Your task to perform on an android device: Go to Android settings Image 0: 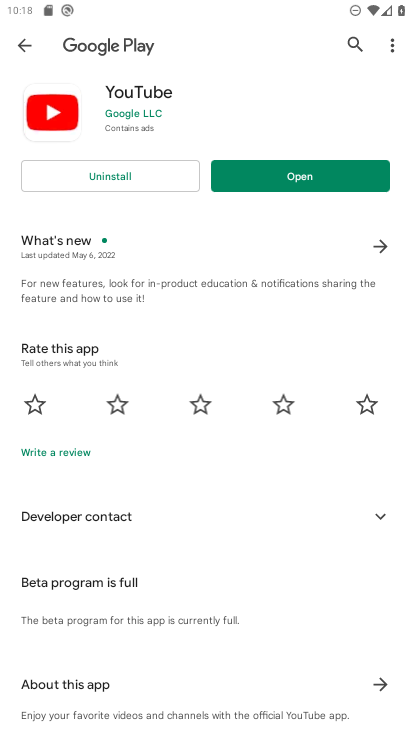
Step 0: press home button
Your task to perform on an android device: Go to Android settings Image 1: 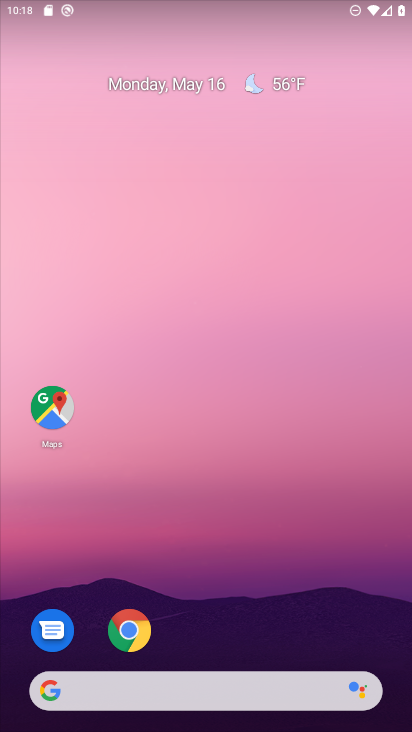
Step 1: drag from (177, 533) to (277, 0)
Your task to perform on an android device: Go to Android settings Image 2: 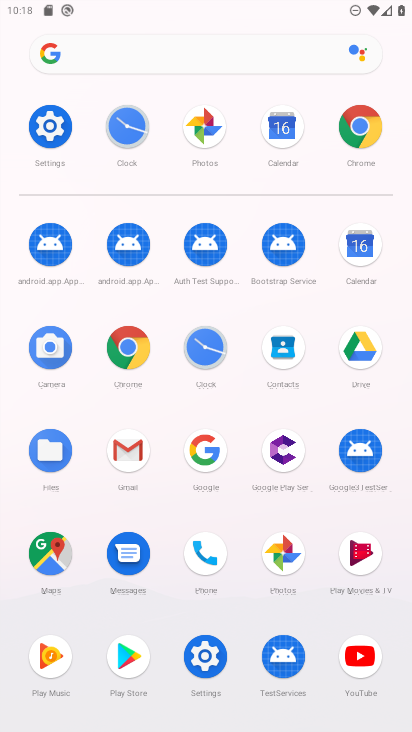
Step 2: click (37, 147)
Your task to perform on an android device: Go to Android settings Image 3: 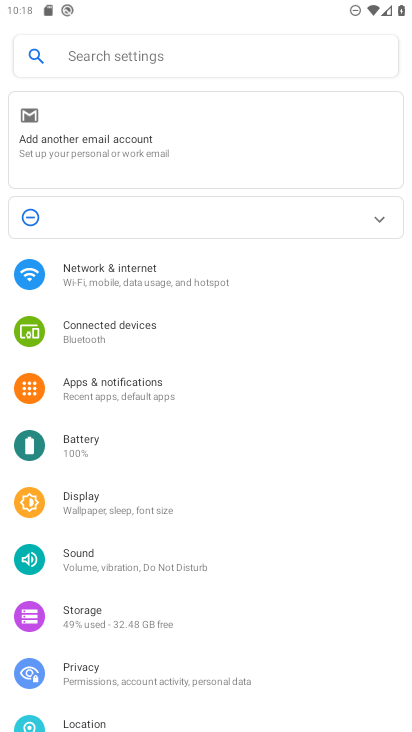
Step 3: drag from (127, 440) to (277, 10)
Your task to perform on an android device: Go to Android settings Image 4: 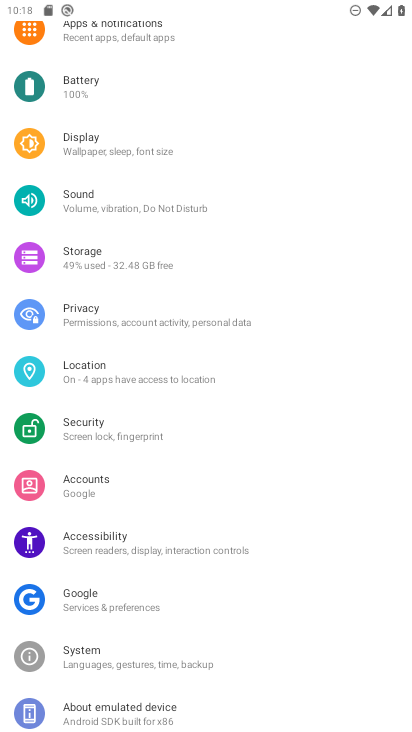
Step 4: drag from (203, 620) to (203, 306)
Your task to perform on an android device: Go to Android settings Image 5: 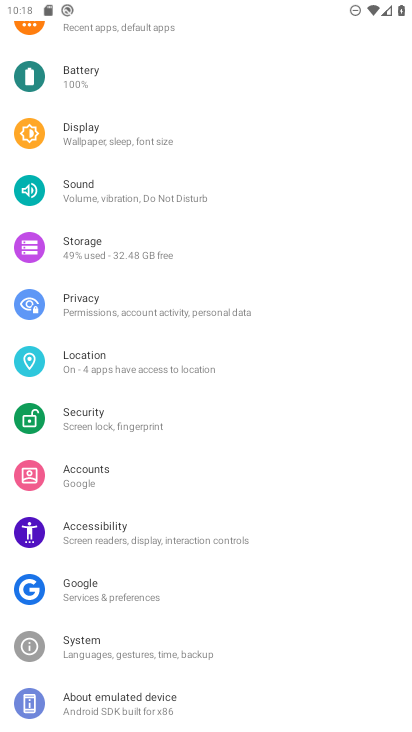
Step 5: click (91, 716)
Your task to perform on an android device: Go to Android settings Image 6: 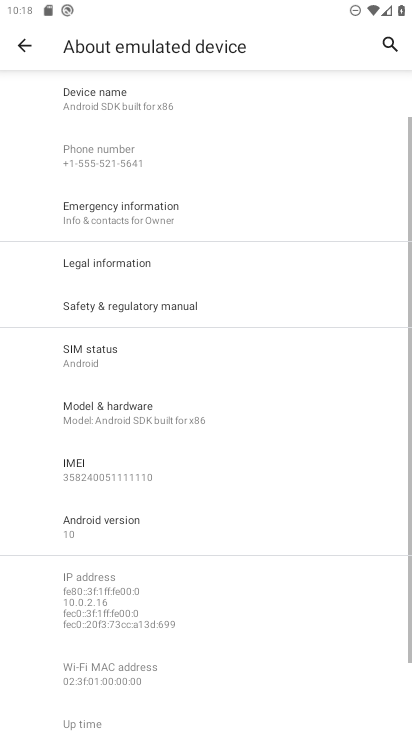
Step 6: click (102, 539)
Your task to perform on an android device: Go to Android settings Image 7: 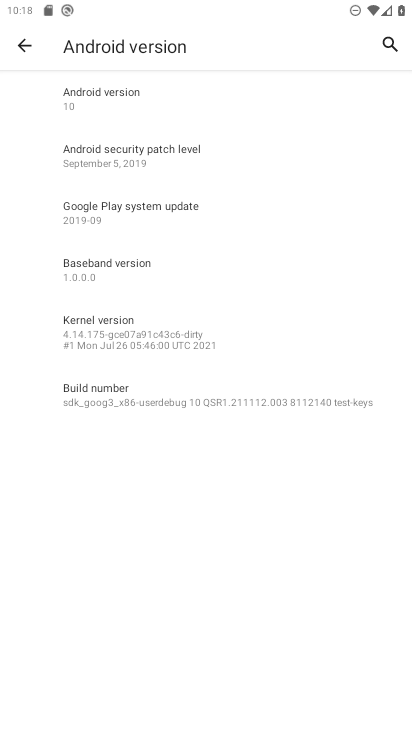
Step 7: task complete